Your task to perform on an android device: What's the weather today? Image 0: 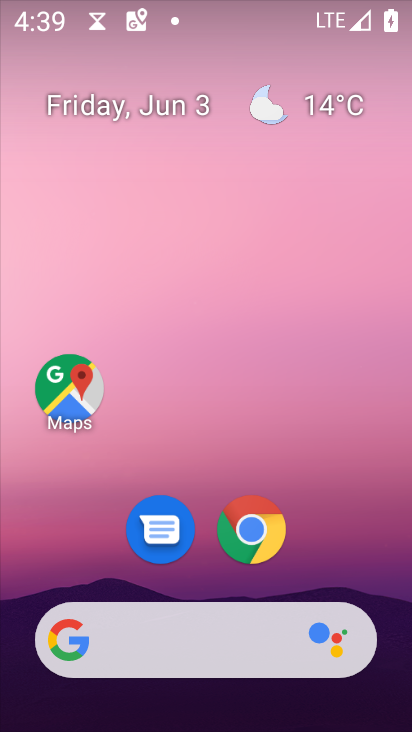
Step 0: click (333, 105)
Your task to perform on an android device: What's the weather today? Image 1: 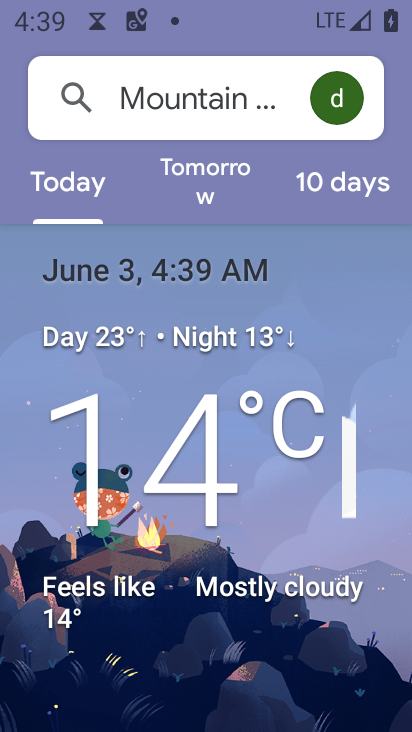
Step 1: task complete